Your task to perform on an android device: Search for custom wallets on etsy. Image 0: 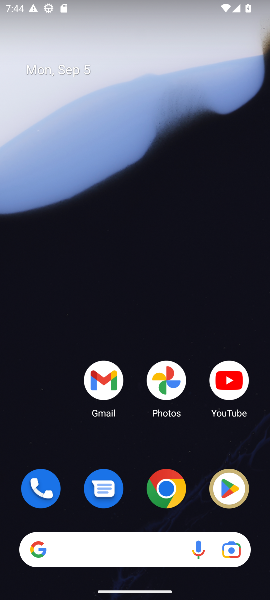
Step 0: click (172, 500)
Your task to perform on an android device: Search for custom wallets on etsy. Image 1: 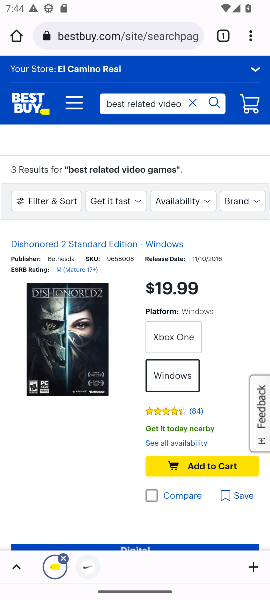
Step 1: click (118, 41)
Your task to perform on an android device: Search for custom wallets on etsy. Image 2: 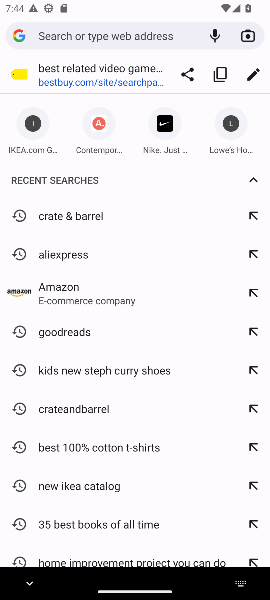
Step 2: type "etsy"
Your task to perform on an android device: Search for custom wallets on etsy. Image 3: 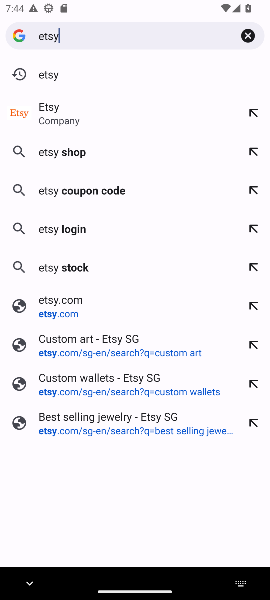
Step 3: press enter
Your task to perform on an android device: Search for custom wallets on etsy. Image 4: 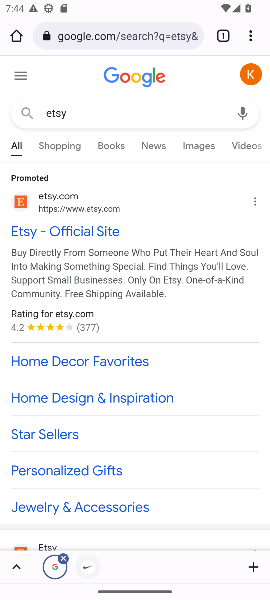
Step 4: click (98, 236)
Your task to perform on an android device: Search for custom wallets on etsy. Image 5: 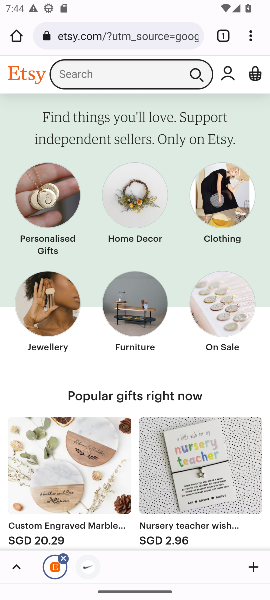
Step 5: click (81, 74)
Your task to perform on an android device: Search for custom wallets on etsy. Image 6: 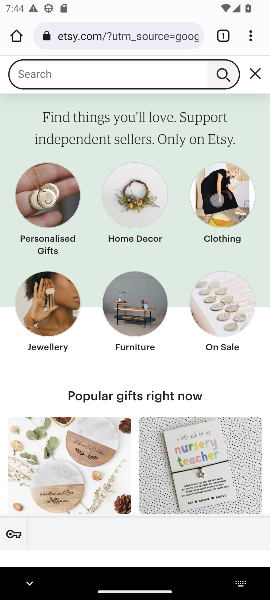
Step 6: type "custom wallets"
Your task to perform on an android device: Search for custom wallets on etsy. Image 7: 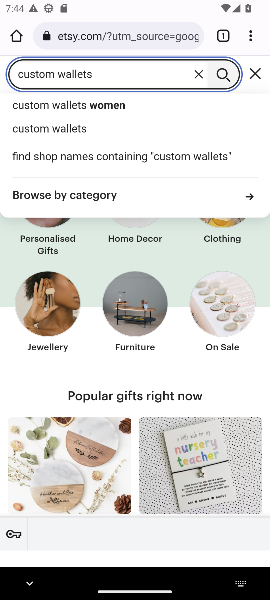
Step 7: press enter
Your task to perform on an android device: Search for custom wallets on etsy. Image 8: 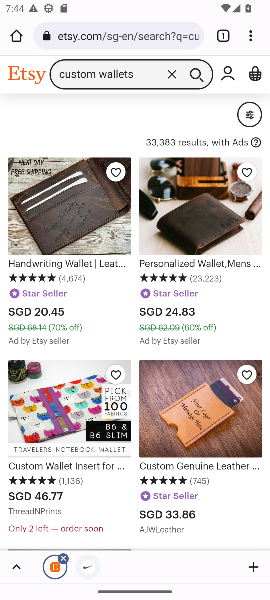
Step 8: task complete